Your task to perform on an android device: empty trash in the gmail app Image 0: 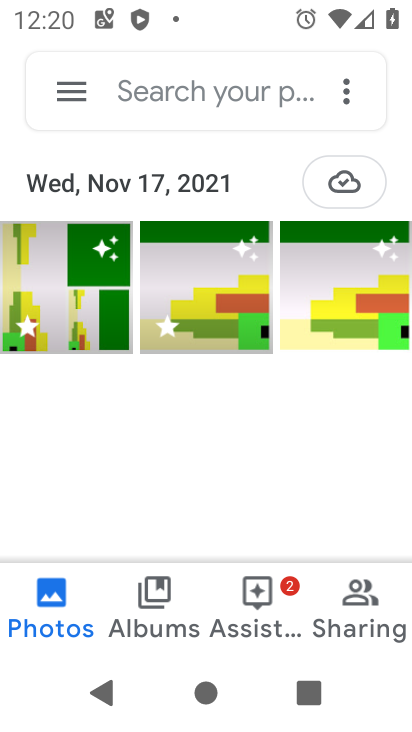
Step 0: press home button
Your task to perform on an android device: empty trash in the gmail app Image 1: 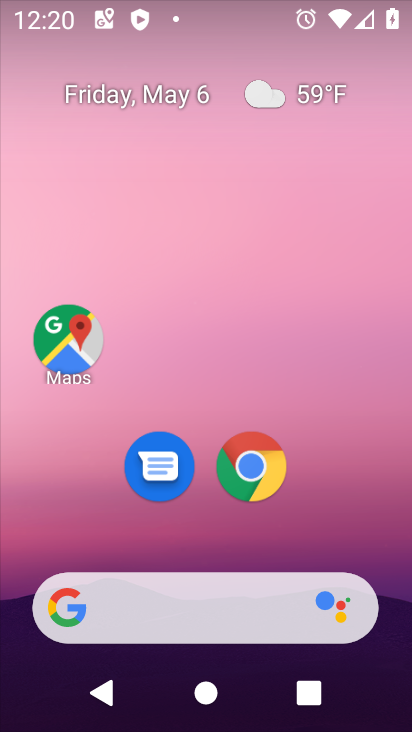
Step 1: drag from (163, 540) to (226, 172)
Your task to perform on an android device: empty trash in the gmail app Image 2: 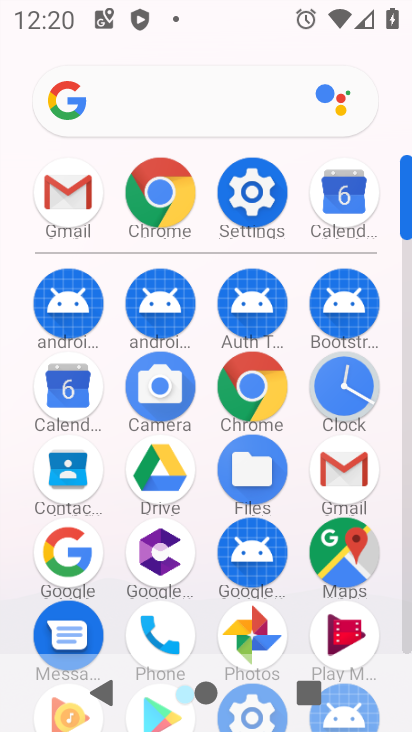
Step 2: click (355, 458)
Your task to perform on an android device: empty trash in the gmail app Image 3: 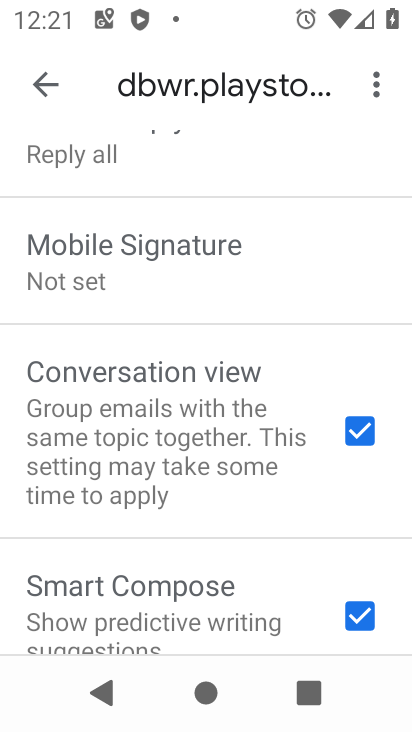
Step 3: drag from (99, 494) to (129, 208)
Your task to perform on an android device: empty trash in the gmail app Image 4: 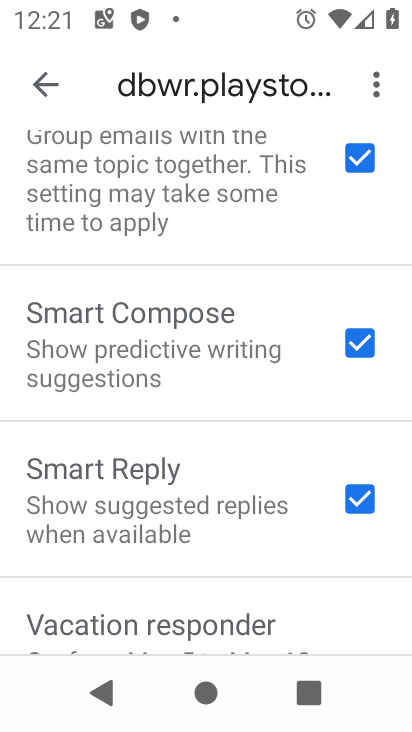
Step 4: drag from (120, 504) to (137, 351)
Your task to perform on an android device: empty trash in the gmail app Image 5: 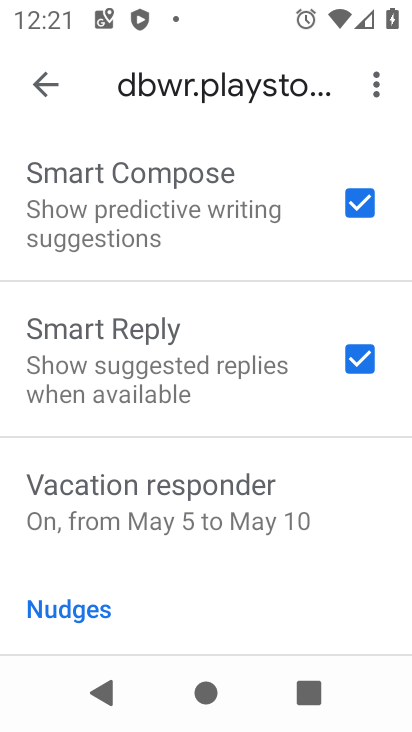
Step 5: drag from (171, 614) to (242, 382)
Your task to perform on an android device: empty trash in the gmail app Image 6: 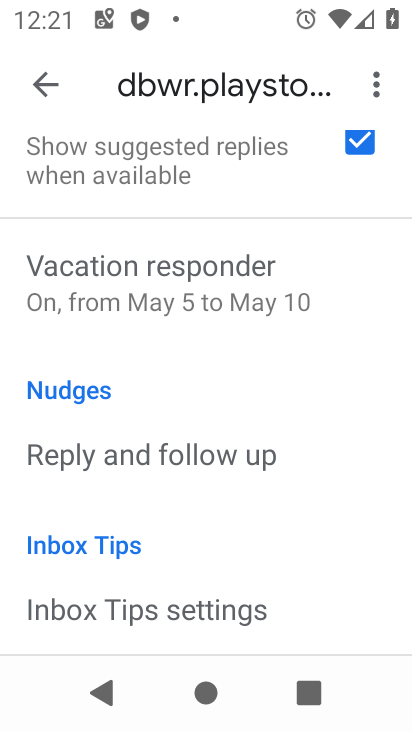
Step 6: click (57, 78)
Your task to perform on an android device: empty trash in the gmail app Image 7: 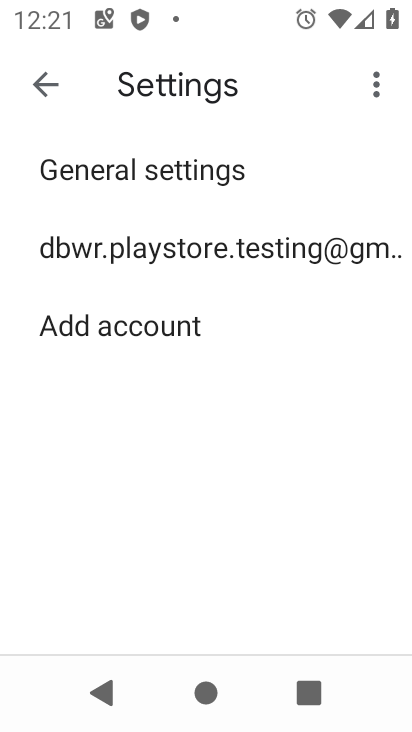
Step 7: click (39, 100)
Your task to perform on an android device: empty trash in the gmail app Image 8: 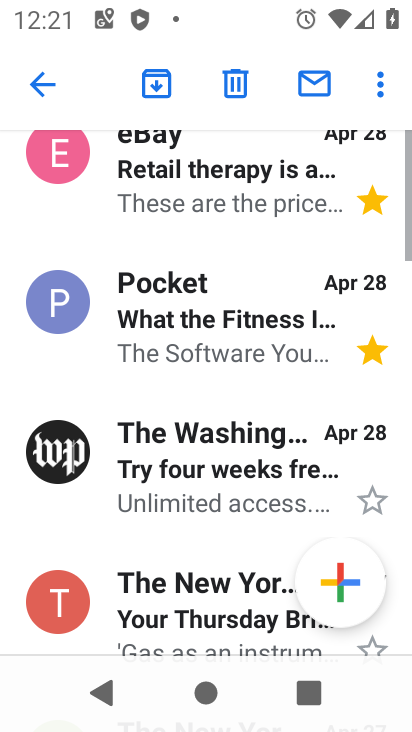
Step 8: click (47, 85)
Your task to perform on an android device: empty trash in the gmail app Image 9: 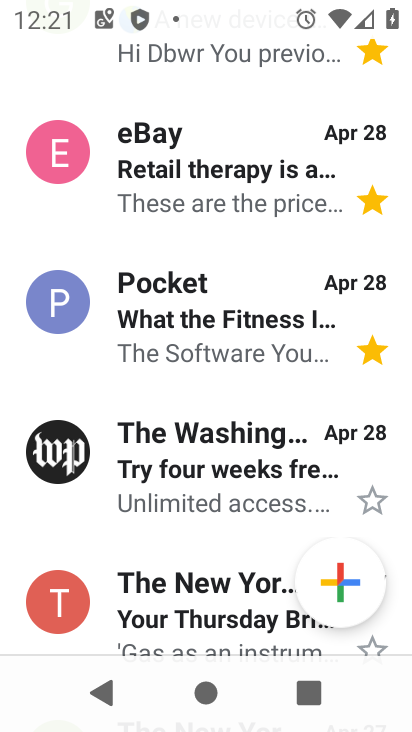
Step 9: drag from (58, 121) to (37, 469)
Your task to perform on an android device: empty trash in the gmail app Image 10: 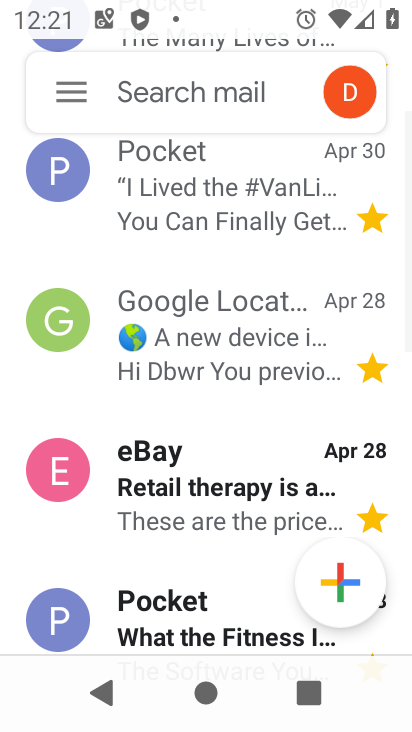
Step 10: click (74, 97)
Your task to perform on an android device: empty trash in the gmail app Image 11: 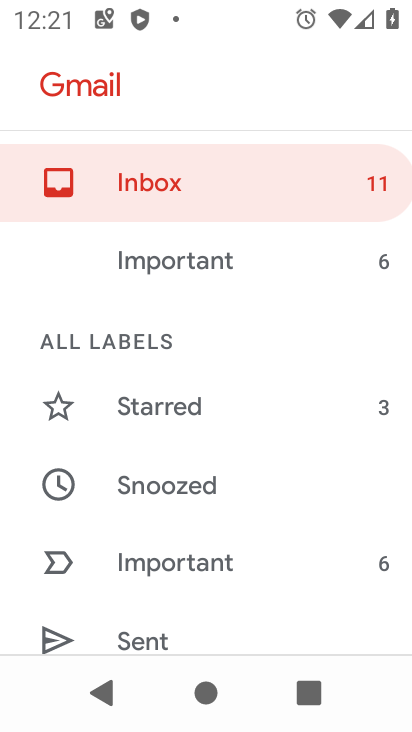
Step 11: drag from (171, 622) to (258, 209)
Your task to perform on an android device: empty trash in the gmail app Image 12: 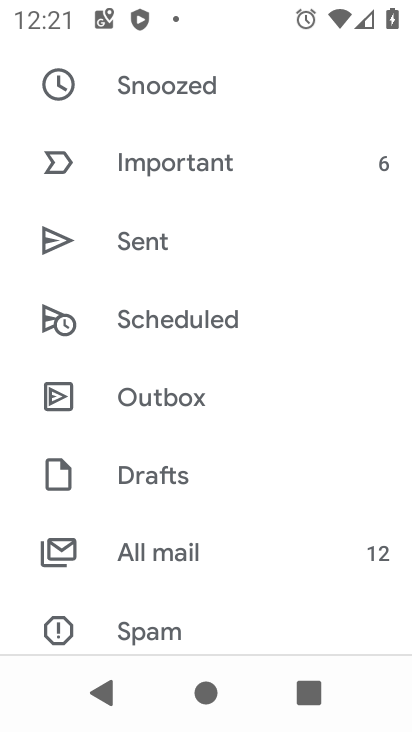
Step 12: drag from (212, 612) to (323, 244)
Your task to perform on an android device: empty trash in the gmail app Image 13: 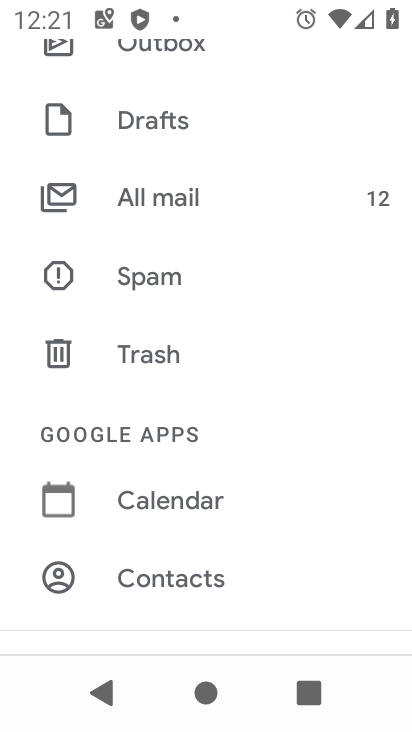
Step 13: click (183, 354)
Your task to perform on an android device: empty trash in the gmail app Image 14: 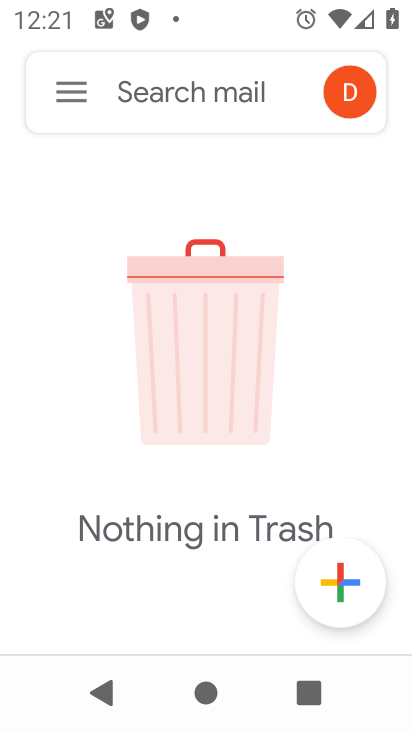
Step 14: task complete